Your task to perform on an android device: check data usage Image 0: 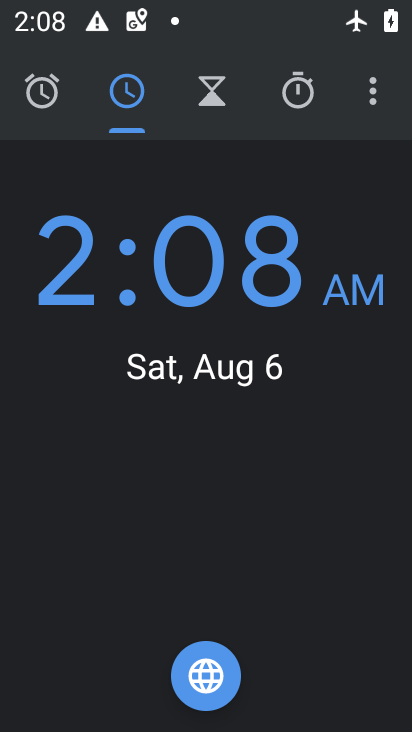
Step 0: press home button
Your task to perform on an android device: check data usage Image 1: 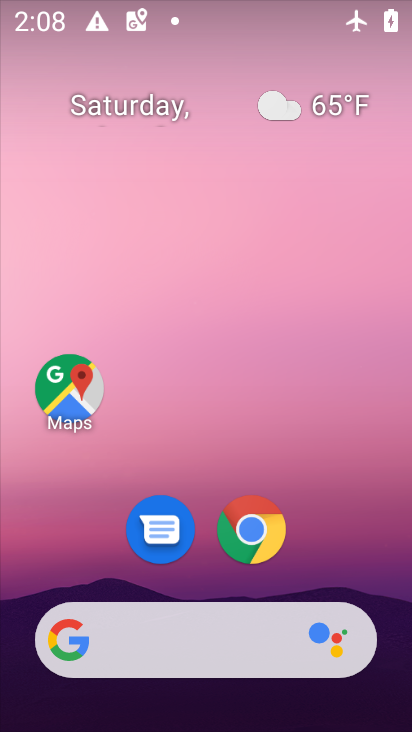
Step 1: drag from (355, 563) to (256, 13)
Your task to perform on an android device: check data usage Image 2: 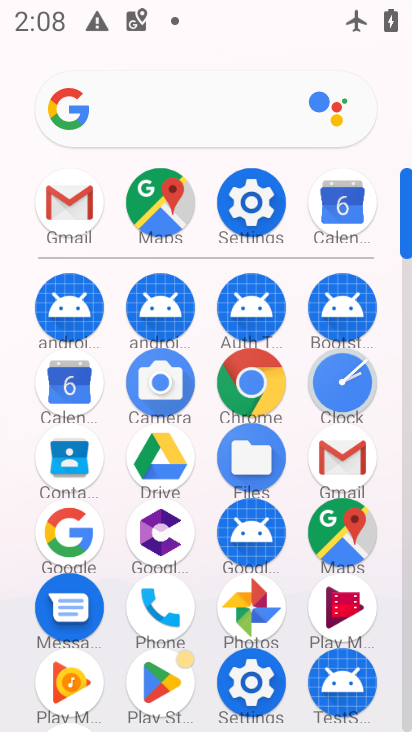
Step 2: click (252, 213)
Your task to perform on an android device: check data usage Image 3: 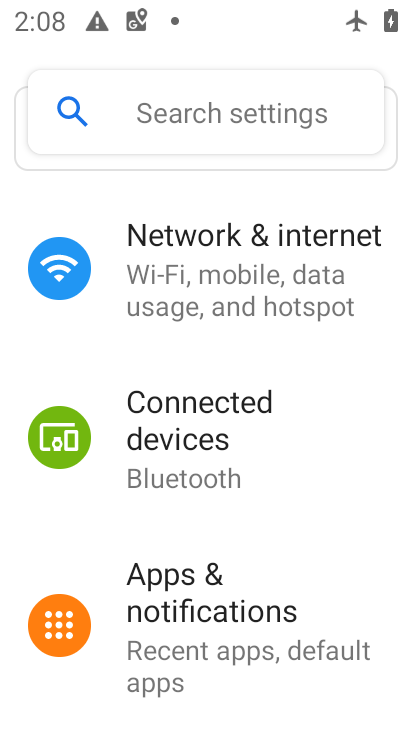
Step 3: click (244, 302)
Your task to perform on an android device: check data usage Image 4: 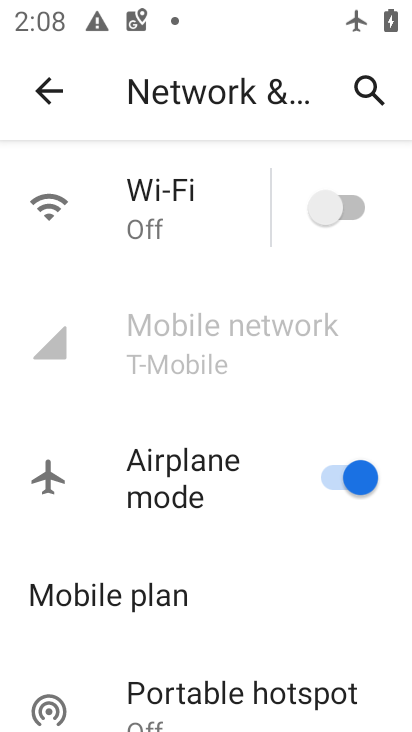
Step 4: drag from (278, 587) to (227, 572)
Your task to perform on an android device: check data usage Image 5: 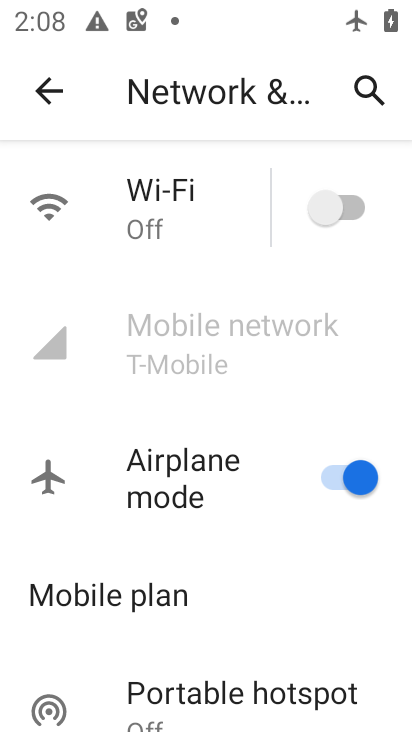
Step 5: click (130, 216)
Your task to perform on an android device: check data usage Image 6: 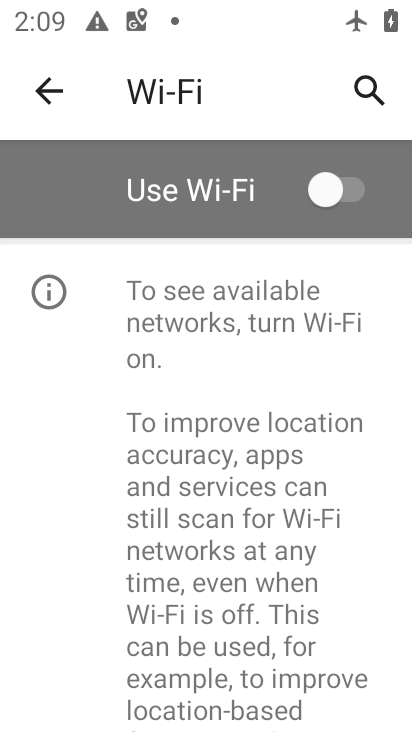
Step 6: drag from (239, 594) to (242, 26)
Your task to perform on an android device: check data usage Image 7: 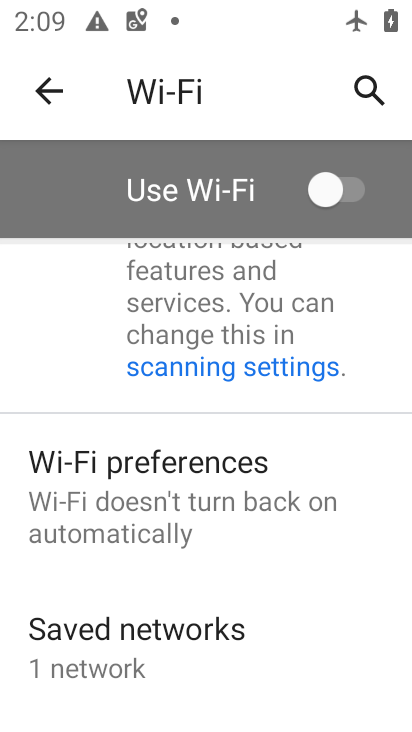
Step 7: drag from (252, 663) to (225, 287)
Your task to perform on an android device: check data usage Image 8: 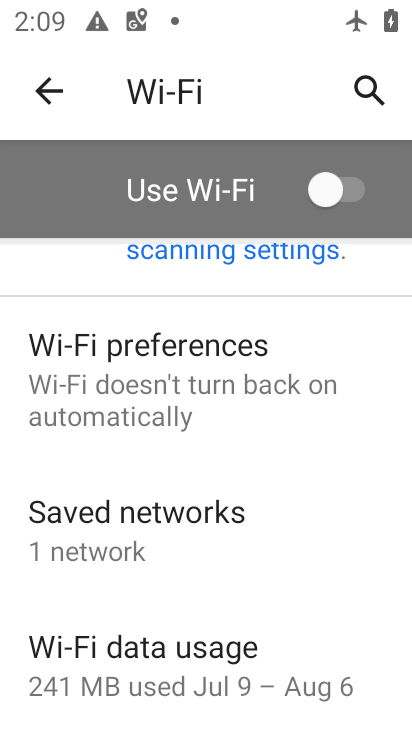
Step 8: click (229, 654)
Your task to perform on an android device: check data usage Image 9: 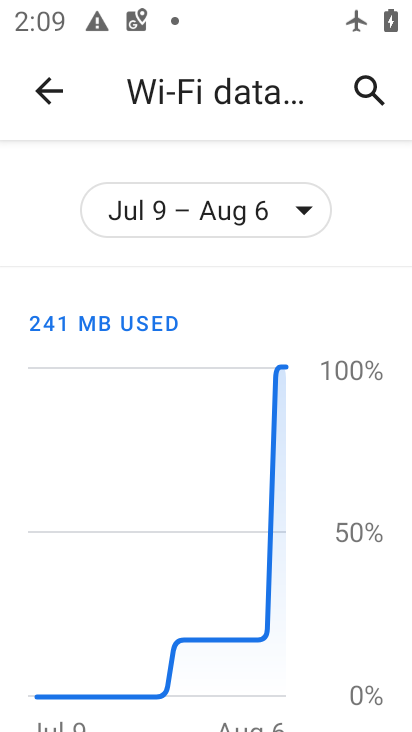
Step 9: task complete